Your task to perform on an android device: delete the emails in spam in the gmail app Image 0: 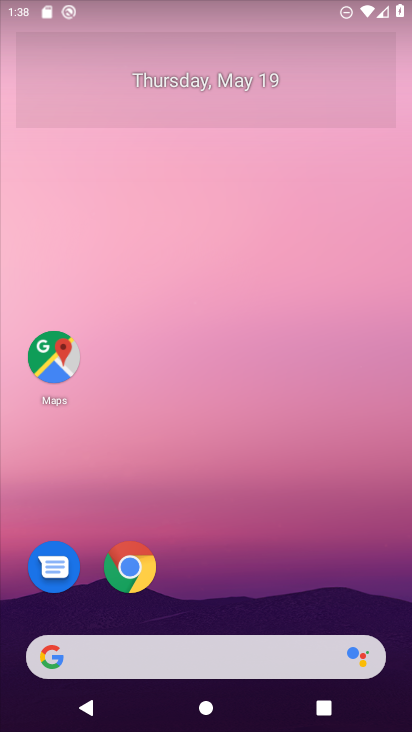
Step 0: drag from (217, 552) to (287, 154)
Your task to perform on an android device: delete the emails in spam in the gmail app Image 1: 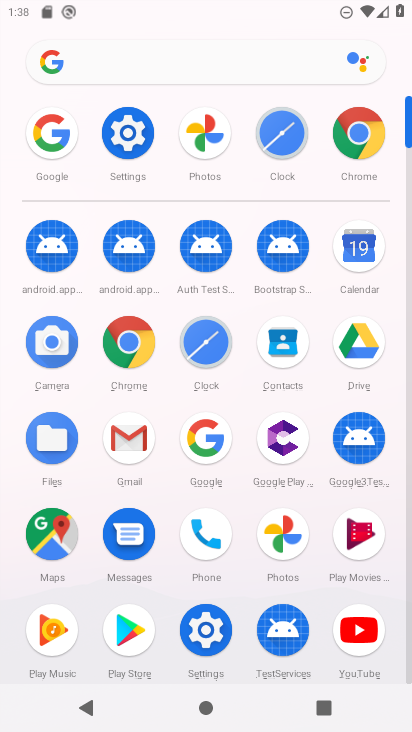
Step 1: click (120, 438)
Your task to perform on an android device: delete the emails in spam in the gmail app Image 2: 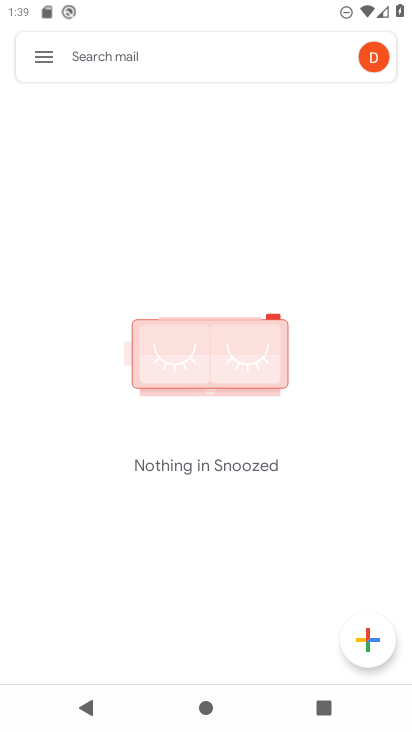
Step 2: click (36, 60)
Your task to perform on an android device: delete the emails in spam in the gmail app Image 3: 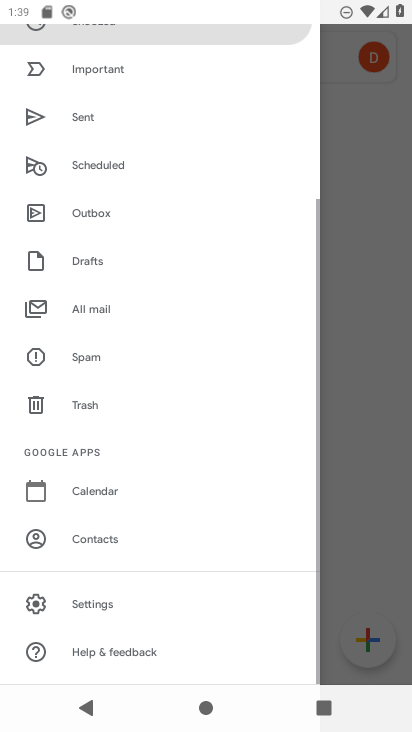
Step 3: click (36, 60)
Your task to perform on an android device: delete the emails in spam in the gmail app Image 4: 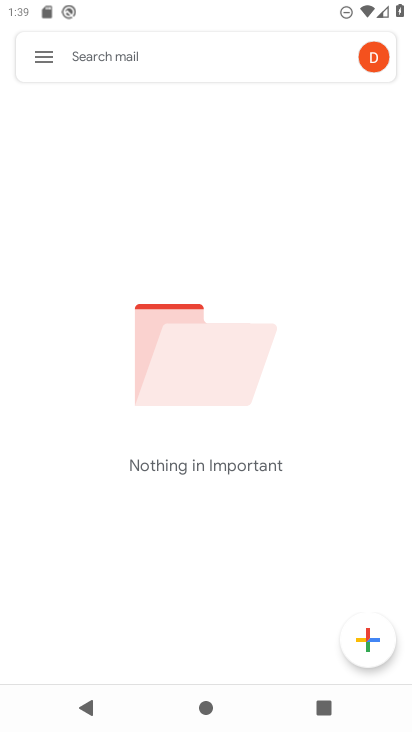
Step 4: click (45, 42)
Your task to perform on an android device: delete the emails in spam in the gmail app Image 5: 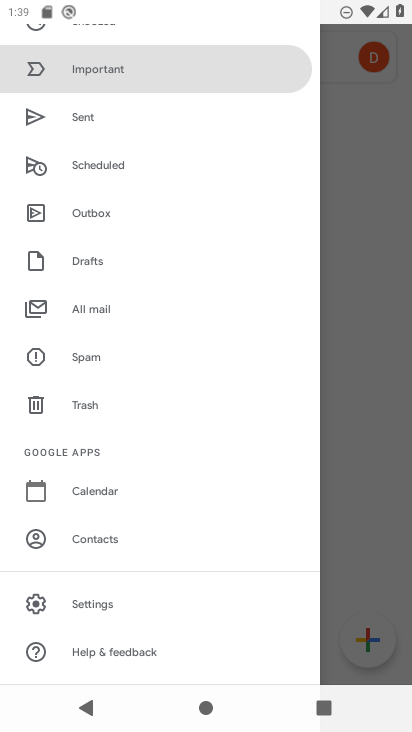
Step 5: click (89, 379)
Your task to perform on an android device: delete the emails in spam in the gmail app Image 6: 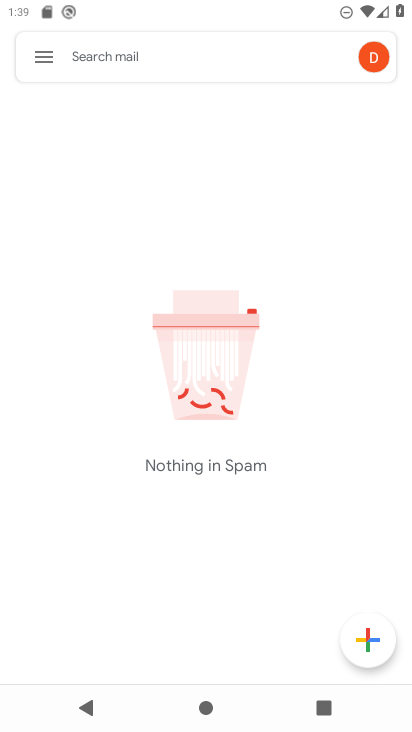
Step 6: task complete